Your task to perform on an android device: Open calendar and show me the second week of next month Image 0: 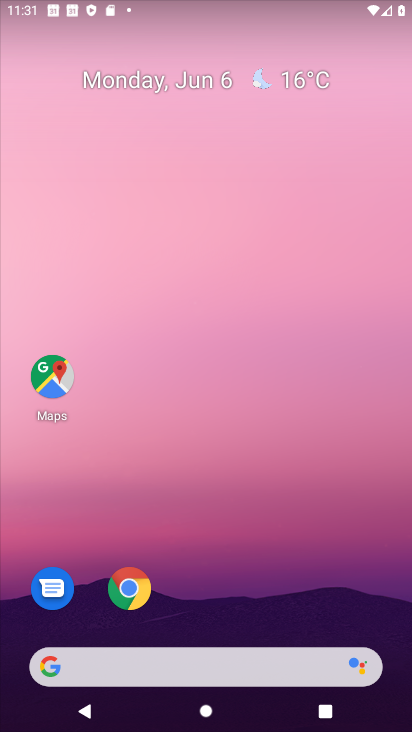
Step 0: drag from (395, 659) to (254, 92)
Your task to perform on an android device: Open calendar and show me the second week of next month Image 1: 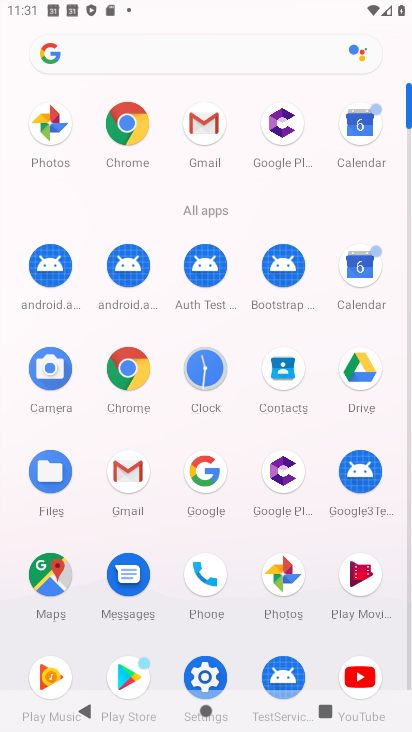
Step 1: click (365, 277)
Your task to perform on an android device: Open calendar and show me the second week of next month Image 2: 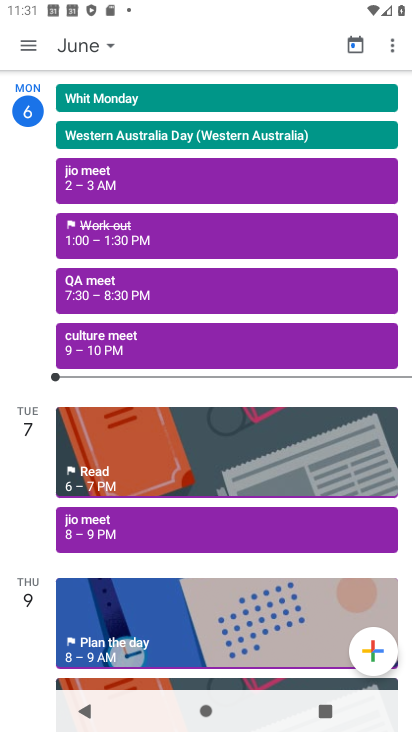
Step 2: click (71, 47)
Your task to perform on an android device: Open calendar and show me the second week of next month Image 3: 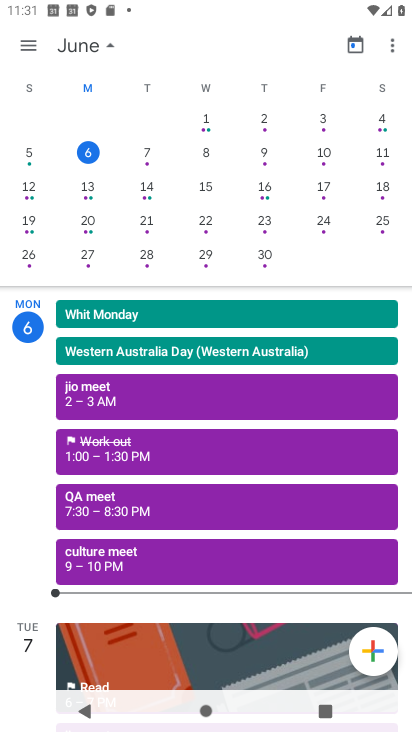
Step 3: drag from (403, 154) to (42, 176)
Your task to perform on an android device: Open calendar and show me the second week of next month Image 4: 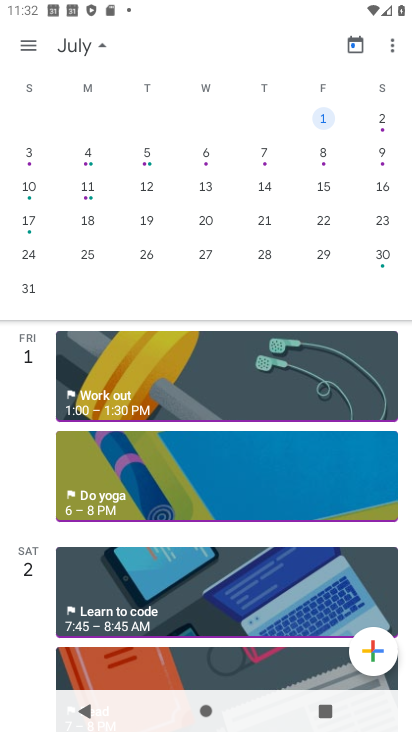
Step 4: click (86, 194)
Your task to perform on an android device: Open calendar and show me the second week of next month Image 5: 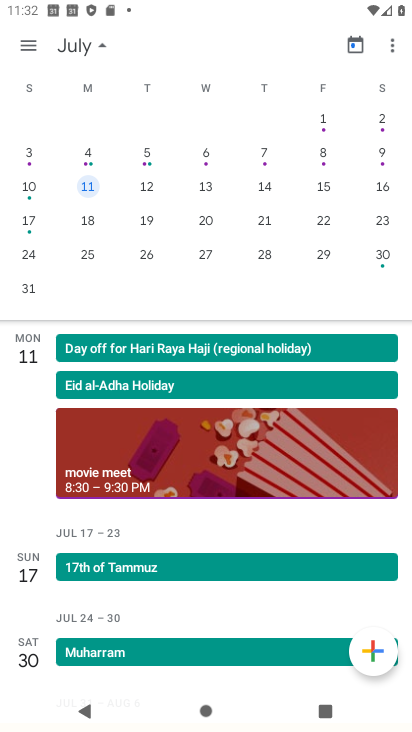
Step 5: task complete